Your task to perform on an android device: Open my contact list Image 0: 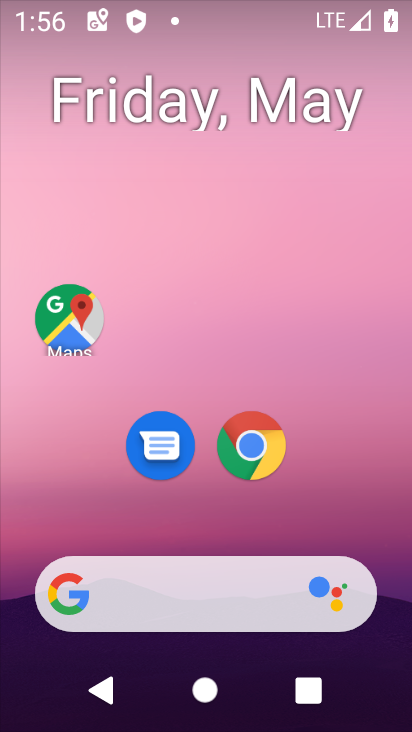
Step 0: press home button
Your task to perform on an android device: Open my contact list Image 1: 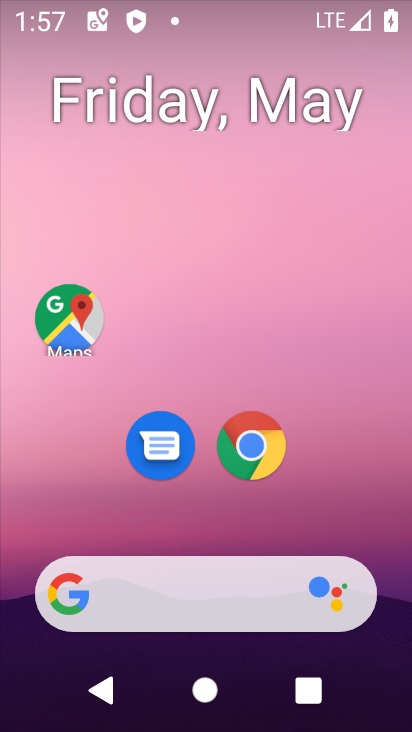
Step 1: drag from (204, 523) to (222, 67)
Your task to perform on an android device: Open my contact list Image 2: 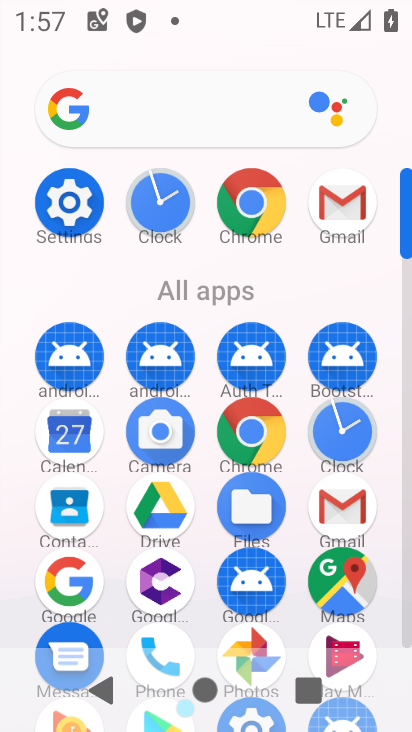
Step 2: click (66, 502)
Your task to perform on an android device: Open my contact list Image 3: 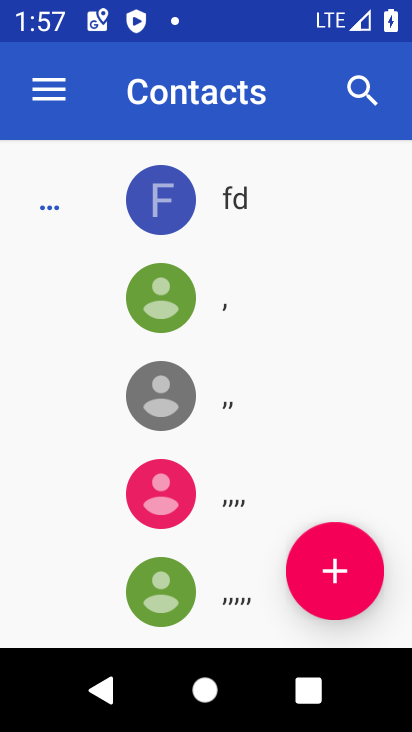
Step 3: task complete